Your task to perform on an android device: add a contact in the contacts app Image 0: 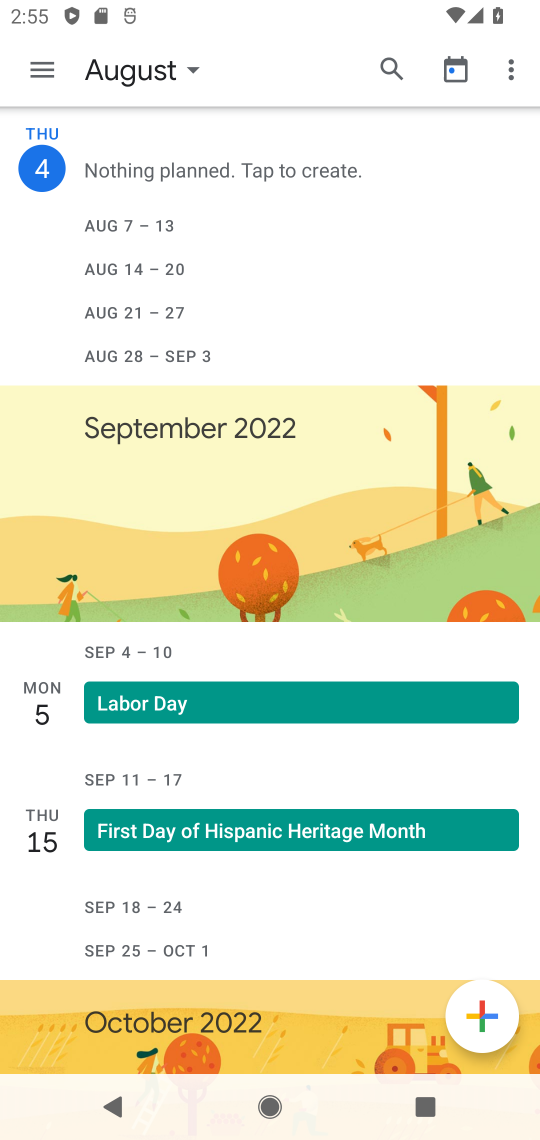
Step 0: press home button
Your task to perform on an android device: add a contact in the contacts app Image 1: 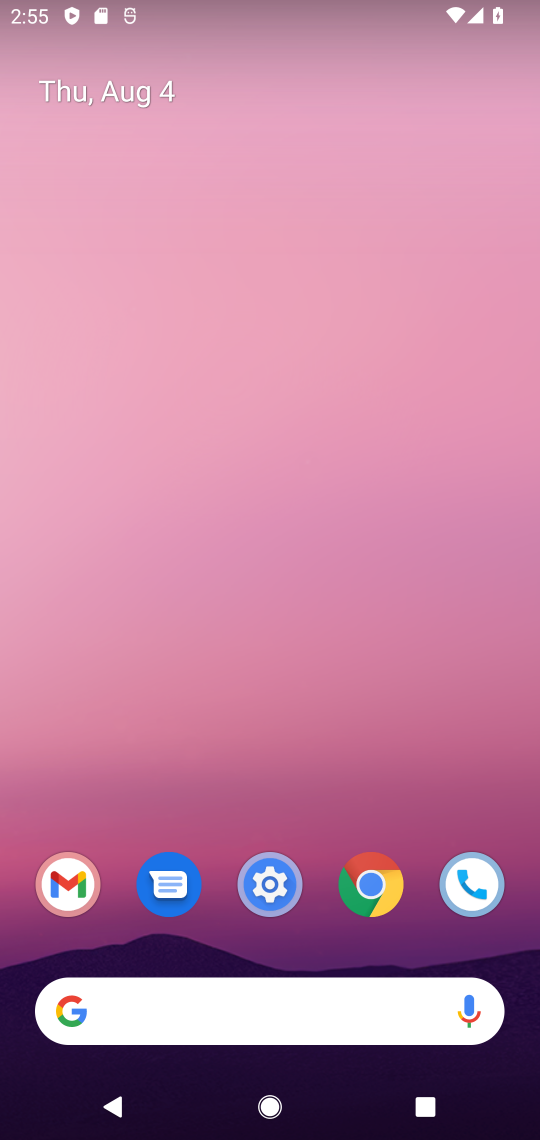
Step 1: drag from (230, 938) to (209, 261)
Your task to perform on an android device: add a contact in the contacts app Image 2: 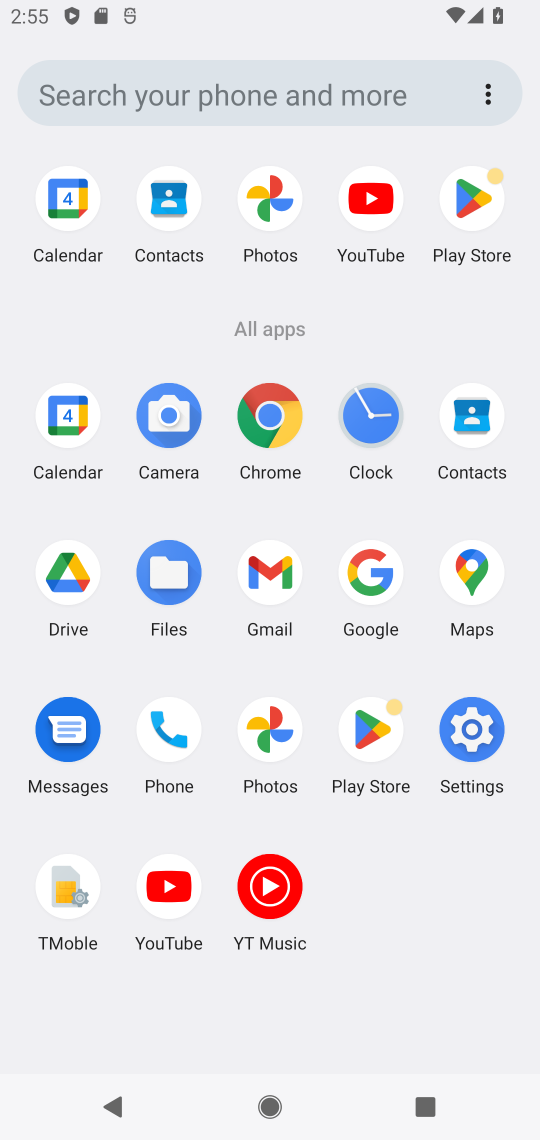
Step 2: click (160, 750)
Your task to perform on an android device: add a contact in the contacts app Image 3: 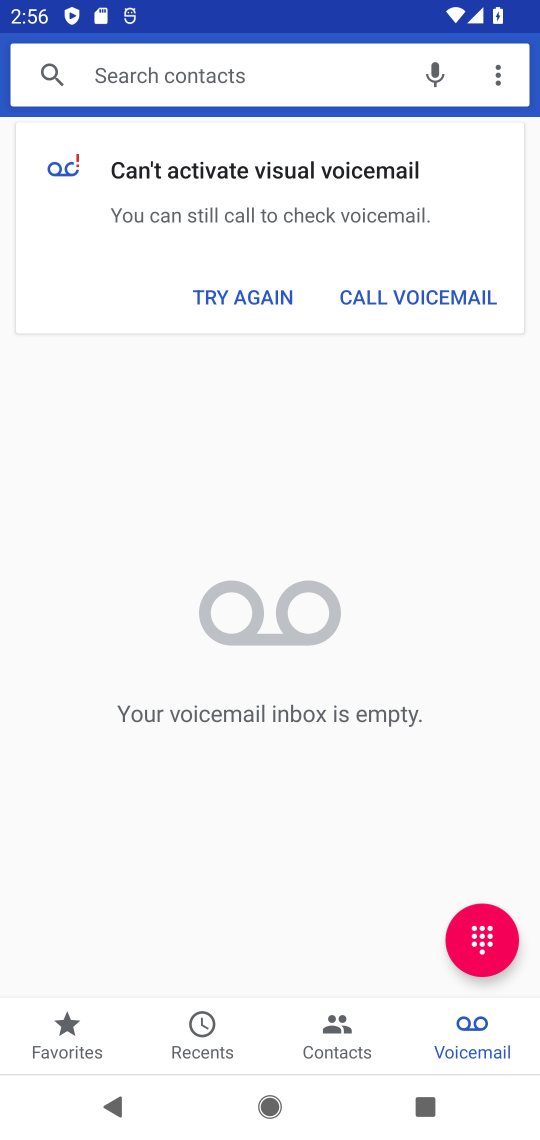
Step 3: click (258, 292)
Your task to perform on an android device: add a contact in the contacts app Image 4: 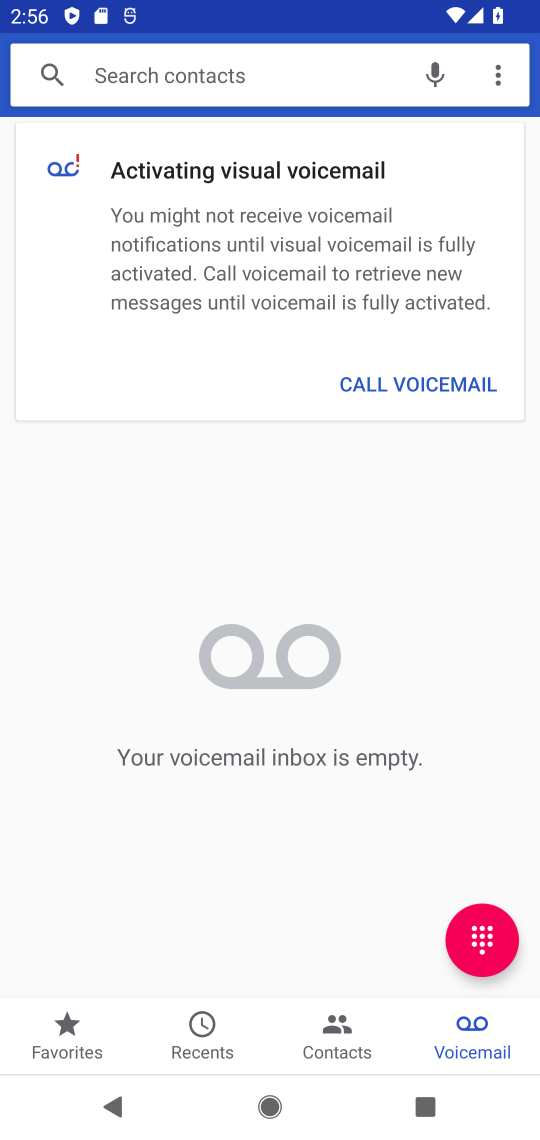
Step 4: click (185, 1027)
Your task to perform on an android device: add a contact in the contacts app Image 5: 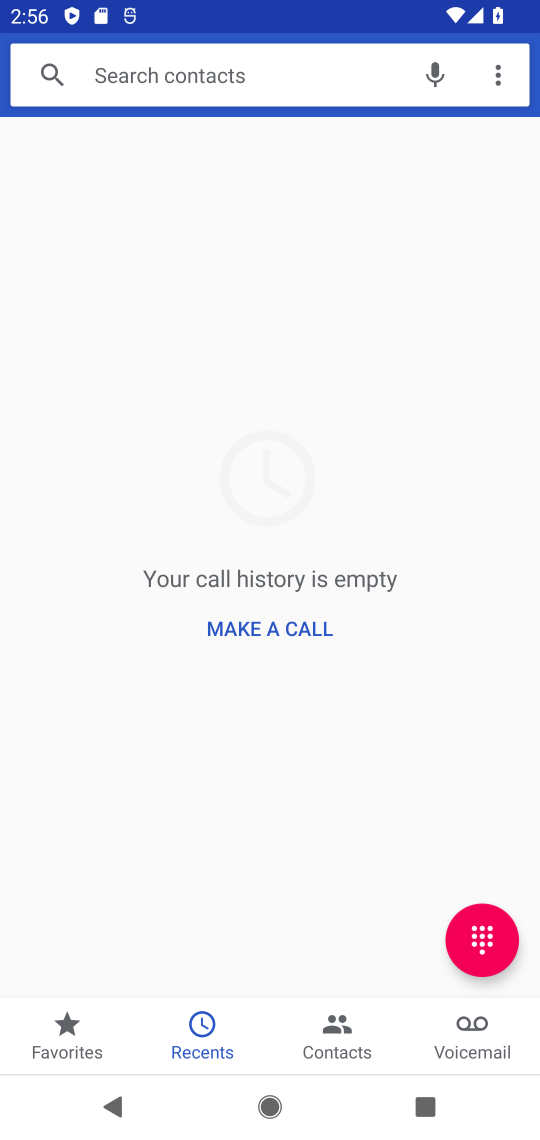
Step 5: click (350, 1017)
Your task to perform on an android device: add a contact in the contacts app Image 6: 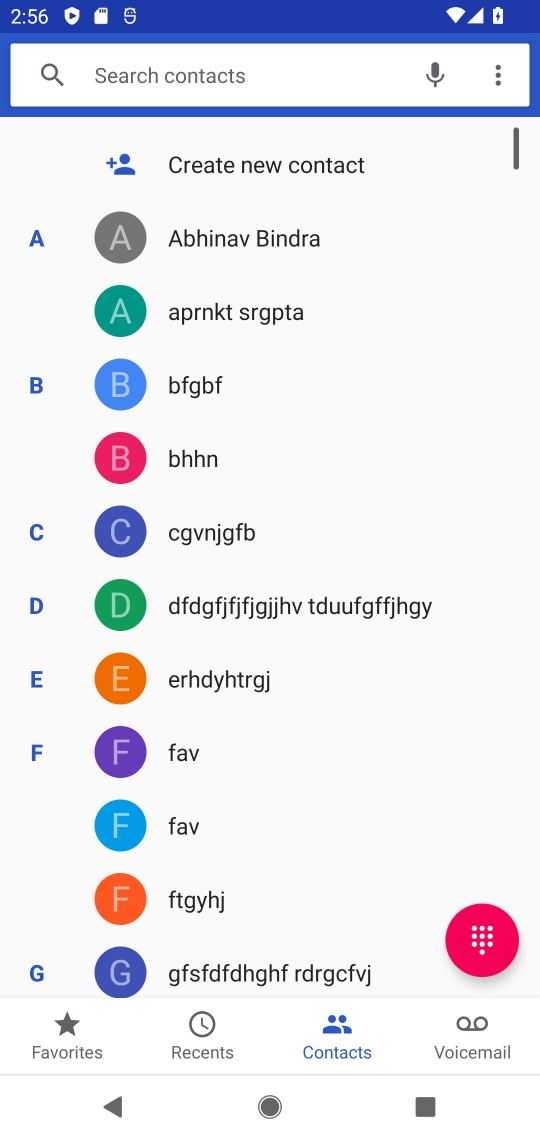
Step 6: click (214, 160)
Your task to perform on an android device: add a contact in the contacts app Image 7: 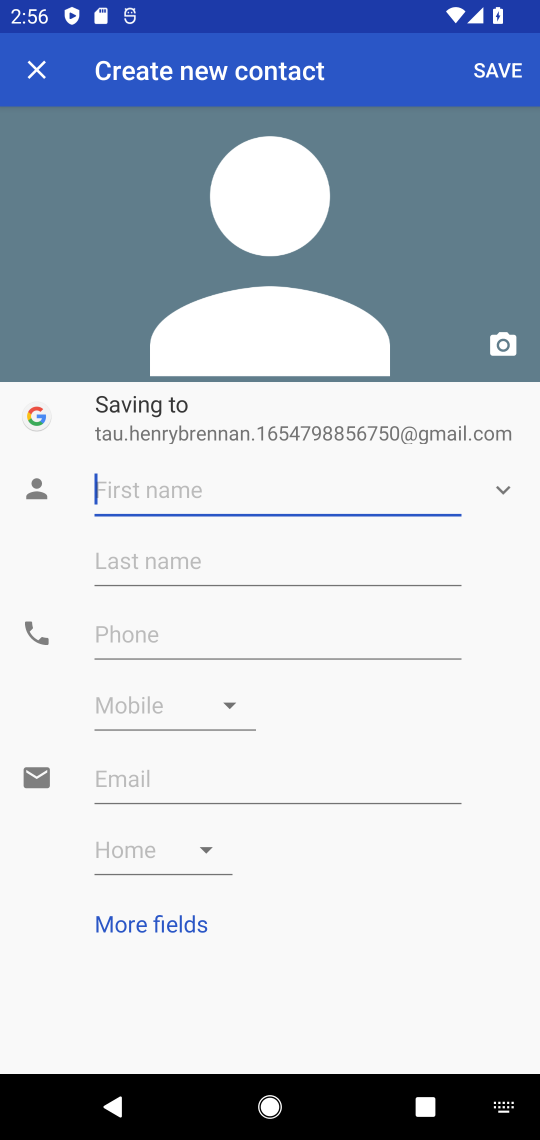
Step 7: click (204, 501)
Your task to perform on an android device: add a contact in the contacts app Image 8: 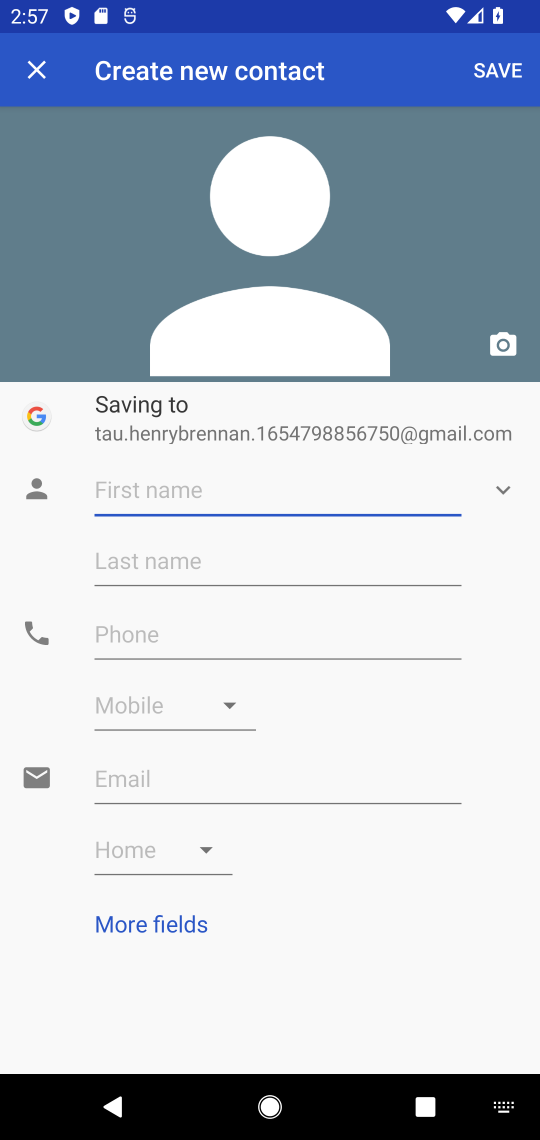
Step 8: type "aatikisha "
Your task to perform on an android device: add a contact in the contacts app Image 9: 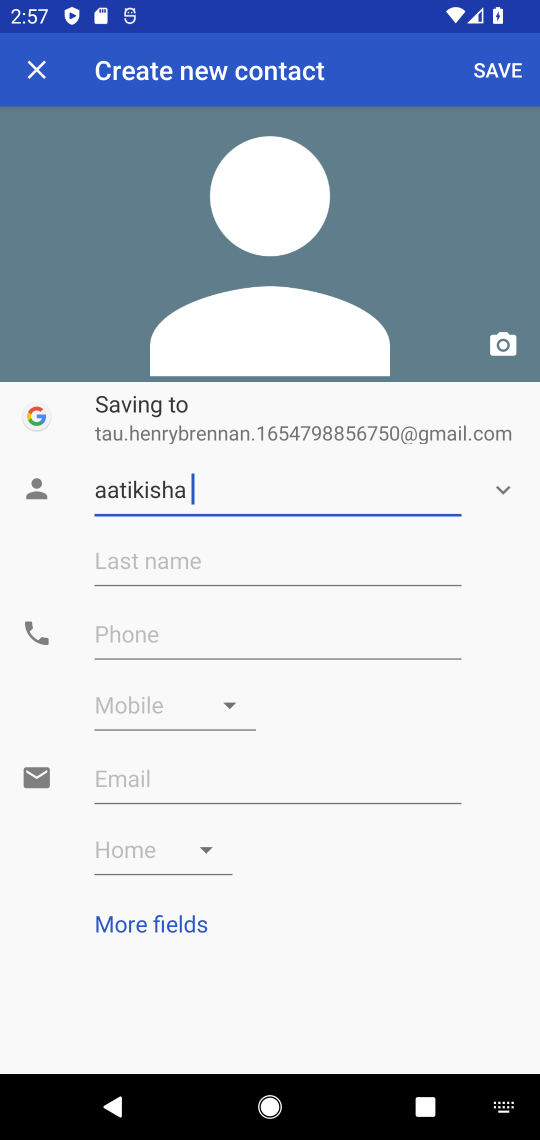
Step 9: click (133, 619)
Your task to perform on an android device: add a contact in the contacts app Image 10: 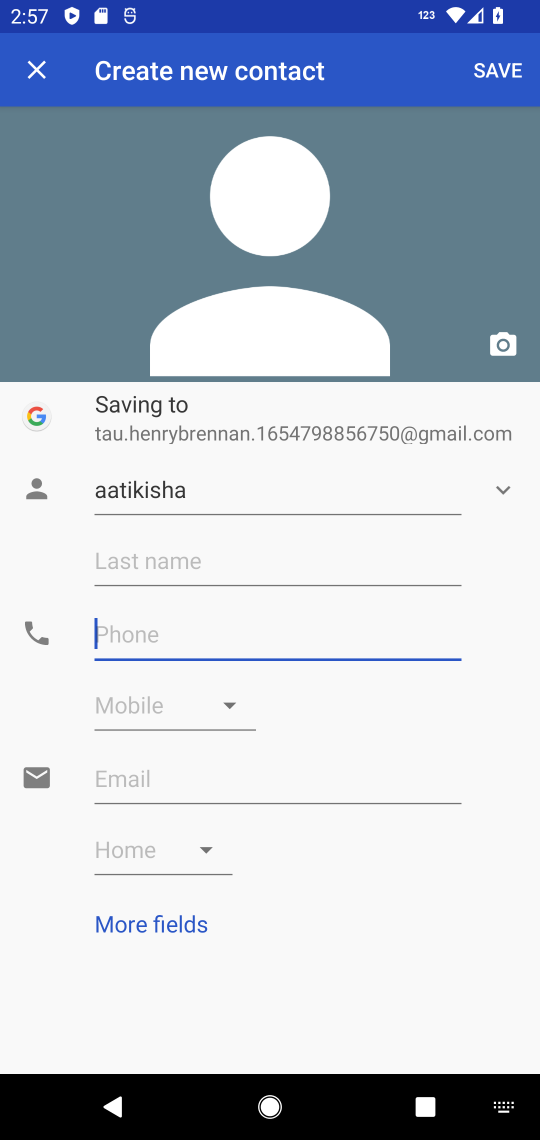
Step 10: type "9191929292922 "
Your task to perform on an android device: add a contact in the contacts app Image 11: 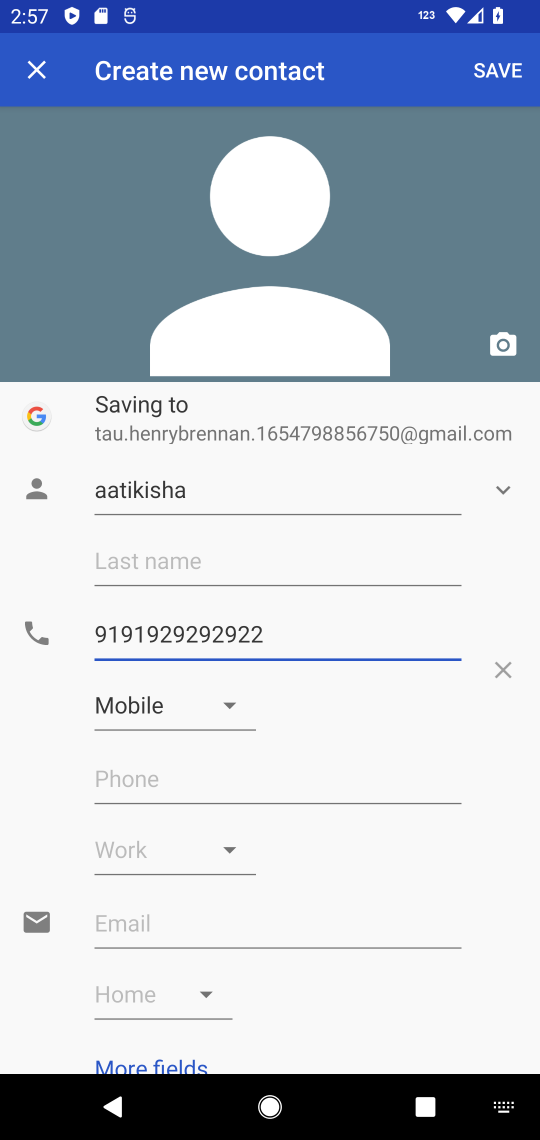
Step 11: click (502, 45)
Your task to perform on an android device: add a contact in the contacts app Image 12: 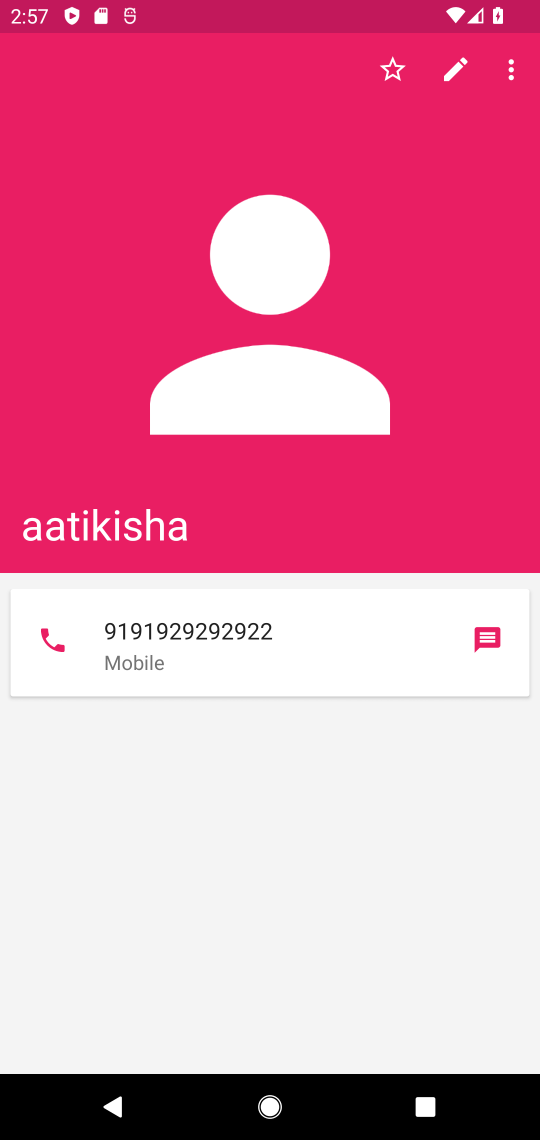
Step 12: task complete